Your task to perform on an android device: open a bookmark in the chrome app Image 0: 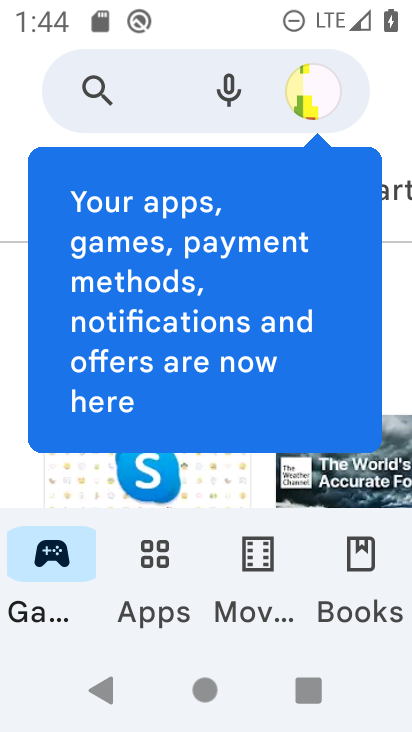
Step 0: press home button
Your task to perform on an android device: open a bookmark in the chrome app Image 1: 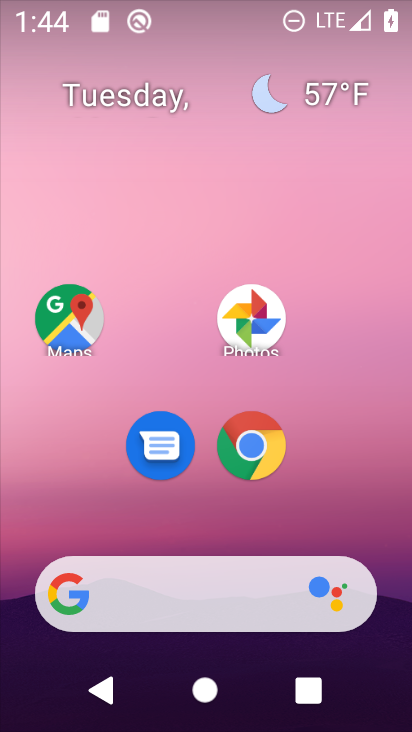
Step 1: drag from (382, 524) to (376, 108)
Your task to perform on an android device: open a bookmark in the chrome app Image 2: 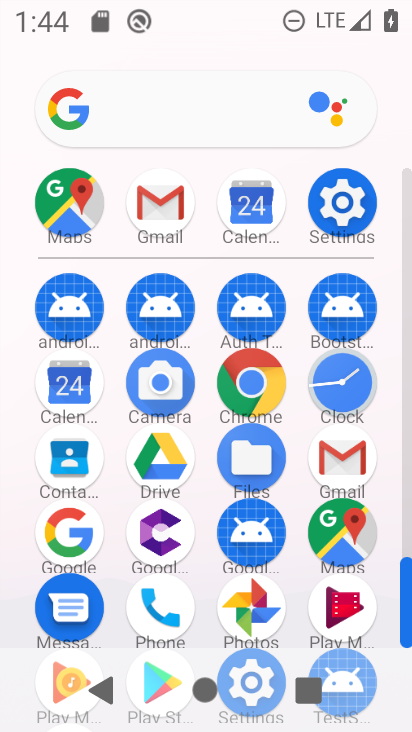
Step 2: click (253, 397)
Your task to perform on an android device: open a bookmark in the chrome app Image 3: 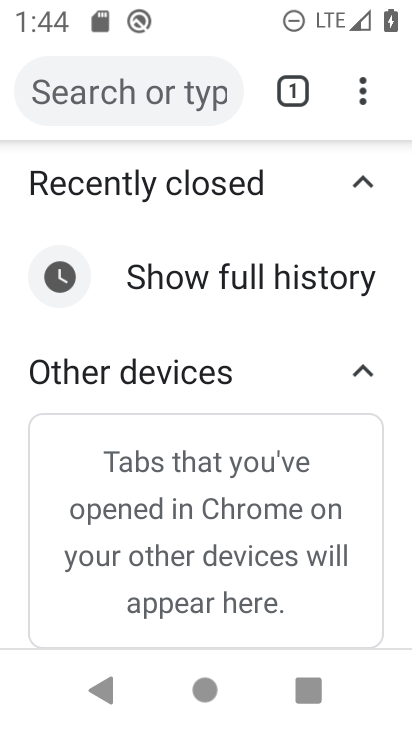
Step 3: click (366, 100)
Your task to perform on an android device: open a bookmark in the chrome app Image 4: 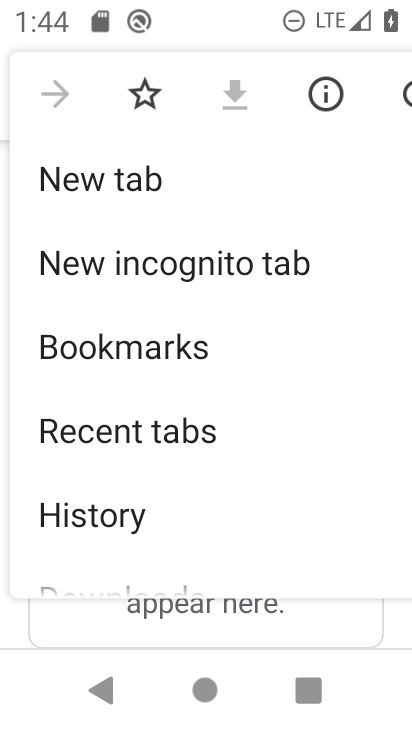
Step 4: drag from (343, 497) to (363, 345)
Your task to perform on an android device: open a bookmark in the chrome app Image 5: 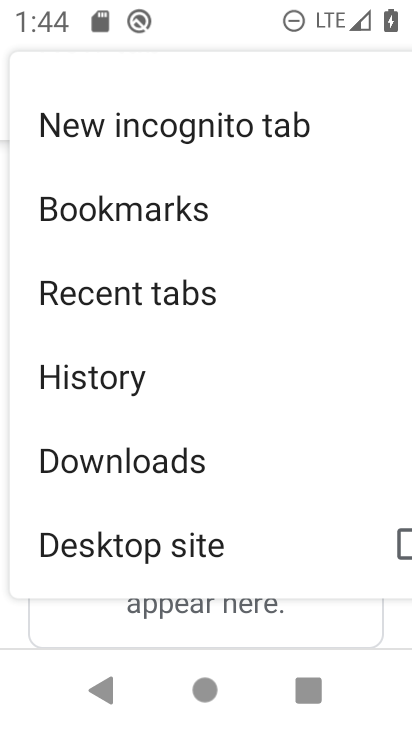
Step 5: drag from (330, 512) to (325, 342)
Your task to perform on an android device: open a bookmark in the chrome app Image 6: 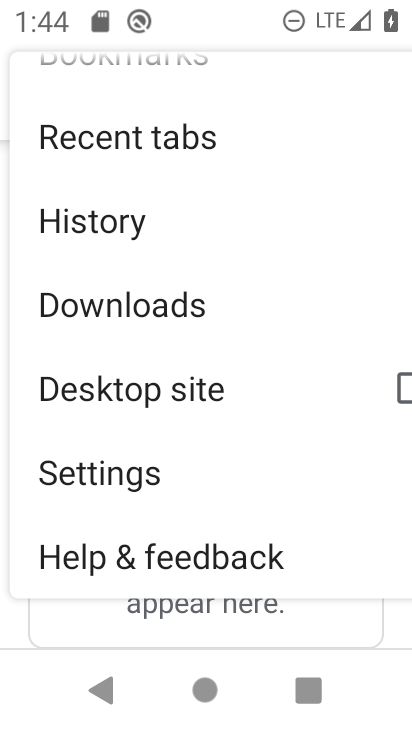
Step 6: drag from (321, 185) to (319, 346)
Your task to perform on an android device: open a bookmark in the chrome app Image 7: 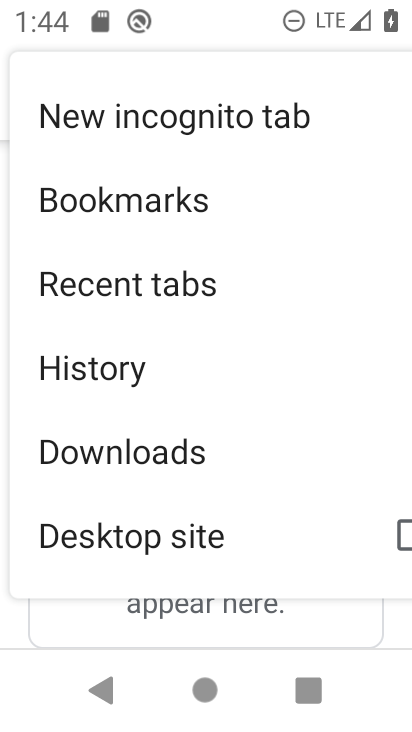
Step 7: drag from (298, 170) to (306, 314)
Your task to perform on an android device: open a bookmark in the chrome app Image 8: 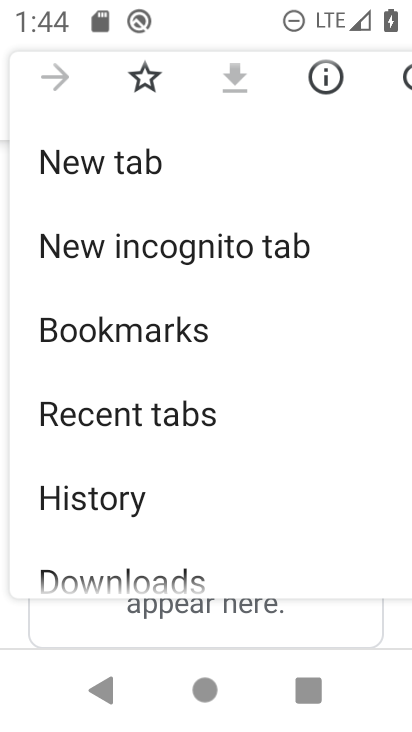
Step 8: click (201, 340)
Your task to perform on an android device: open a bookmark in the chrome app Image 9: 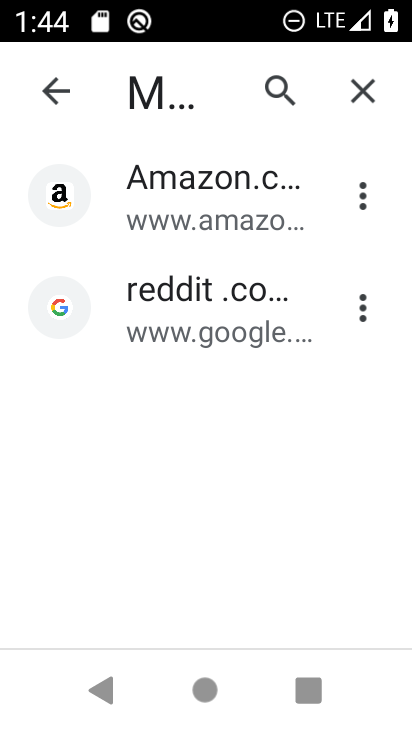
Step 9: click (257, 198)
Your task to perform on an android device: open a bookmark in the chrome app Image 10: 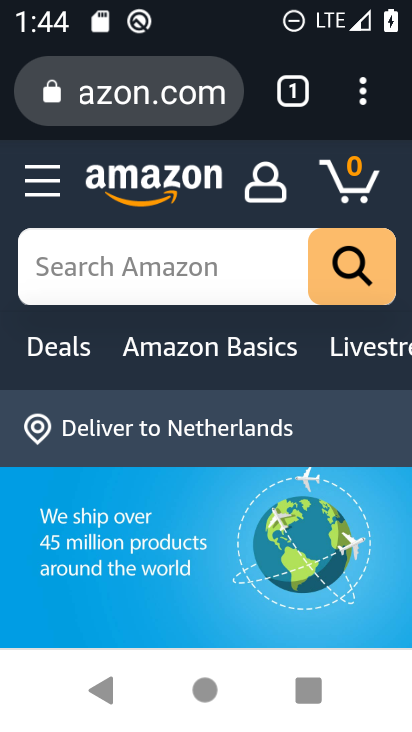
Step 10: task complete